Your task to perform on an android device: check storage Image 0: 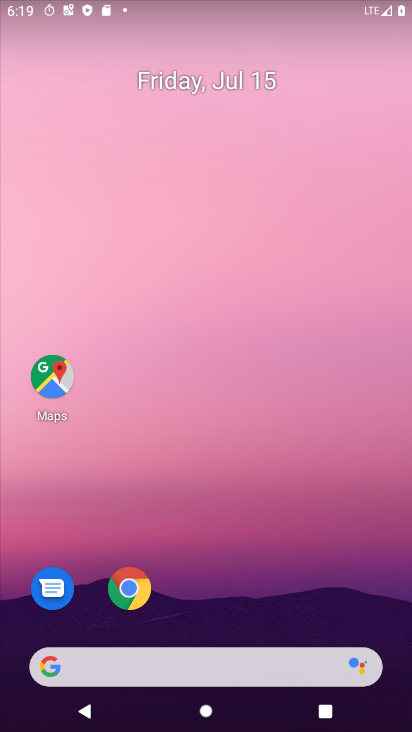
Step 0: drag from (348, 624) to (300, 0)
Your task to perform on an android device: check storage Image 1: 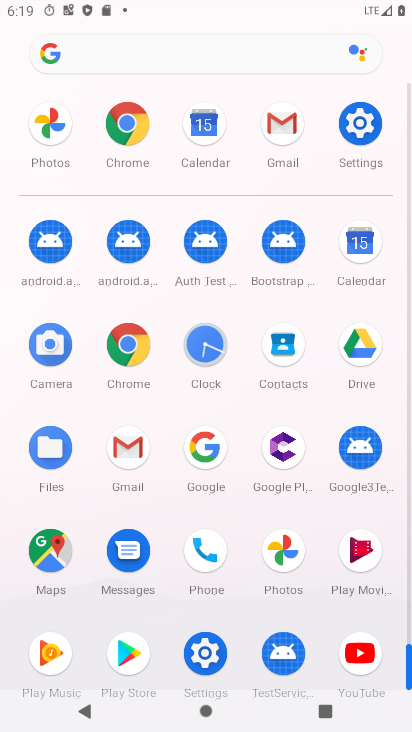
Step 1: click (367, 130)
Your task to perform on an android device: check storage Image 2: 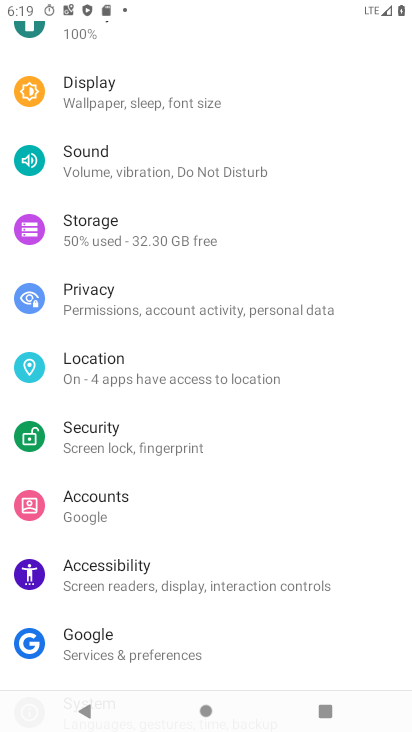
Step 2: click (138, 227)
Your task to perform on an android device: check storage Image 3: 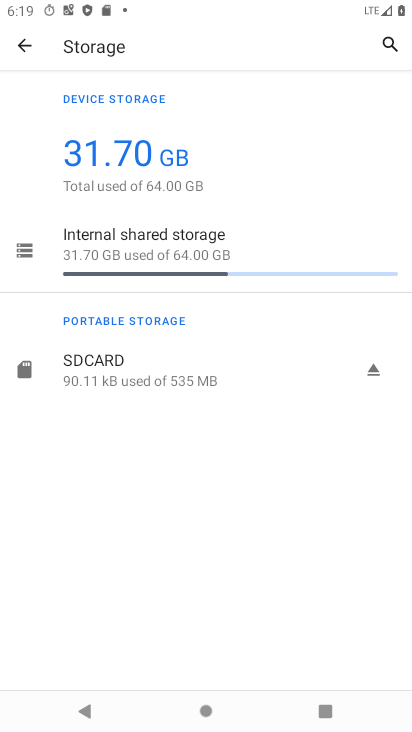
Step 3: task complete